Your task to perform on an android device: turn on the 12-hour format for clock Image 0: 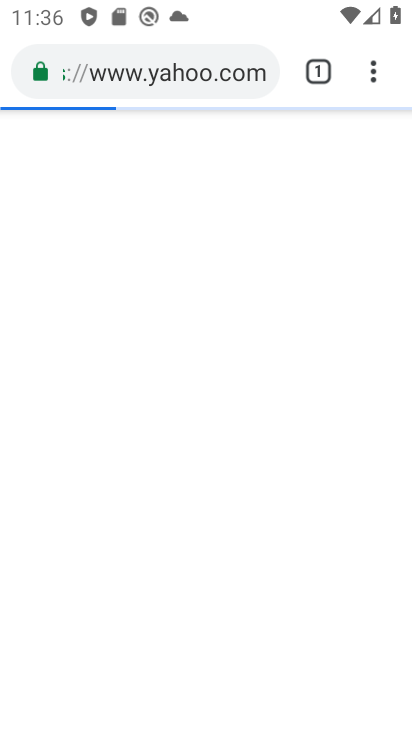
Step 0: press home button
Your task to perform on an android device: turn on the 12-hour format for clock Image 1: 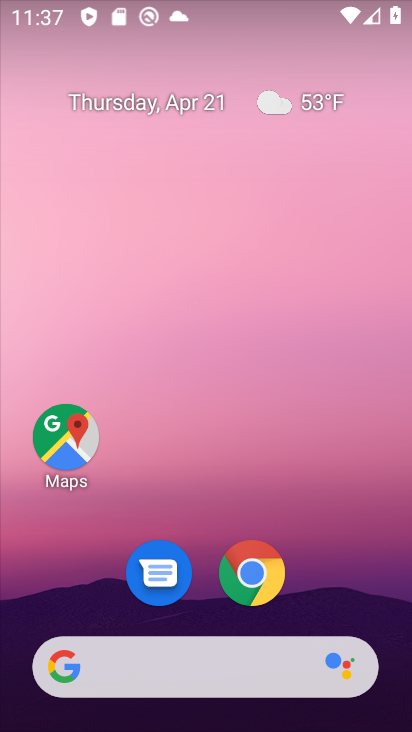
Step 1: drag from (181, 654) to (365, 83)
Your task to perform on an android device: turn on the 12-hour format for clock Image 2: 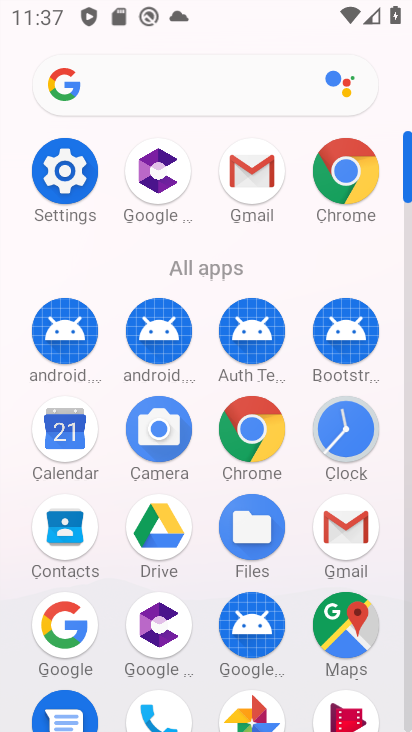
Step 2: click (352, 426)
Your task to perform on an android device: turn on the 12-hour format for clock Image 3: 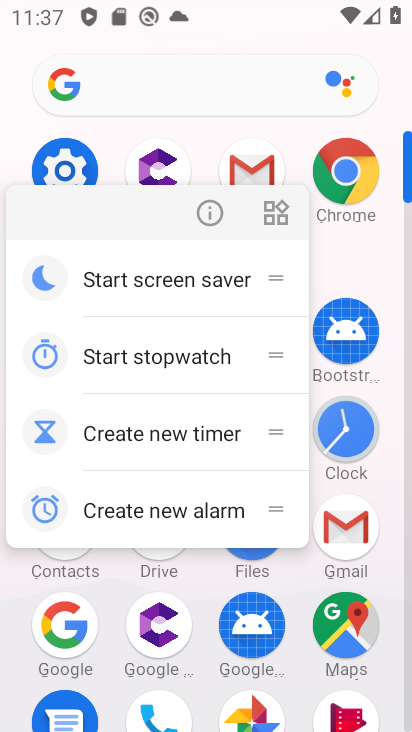
Step 3: click (348, 428)
Your task to perform on an android device: turn on the 12-hour format for clock Image 4: 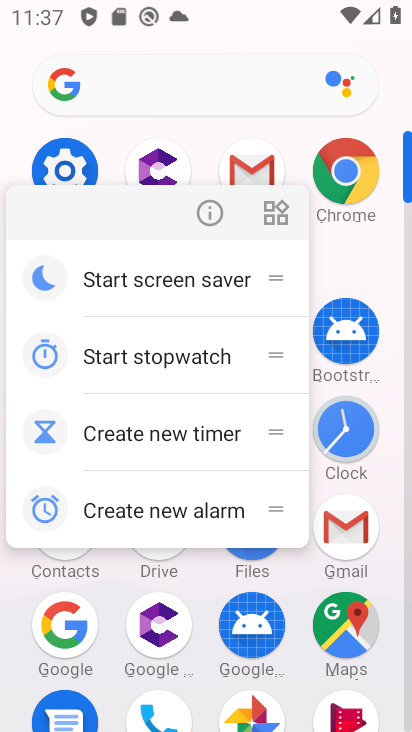
Step 4: click (338, 448)
Your task to perform on an android device: turn on the 12-hour format for clock Image 5: 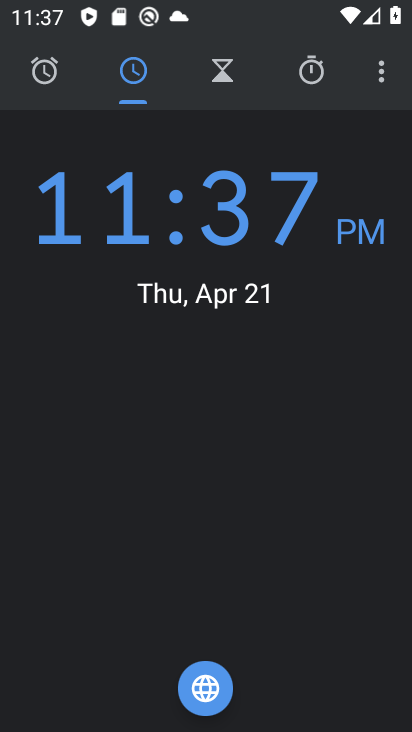
Step 5: click (383, 70)
Your task to perform on an android device: turn on the 12-hour format for clock Image 6: 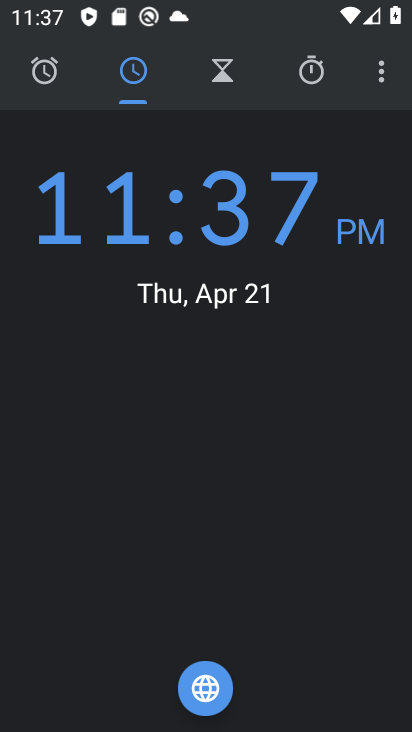
Step 6: click (379, 82)
Your task to perform on an android device: turn on the 12-hour format for clock Image 7: 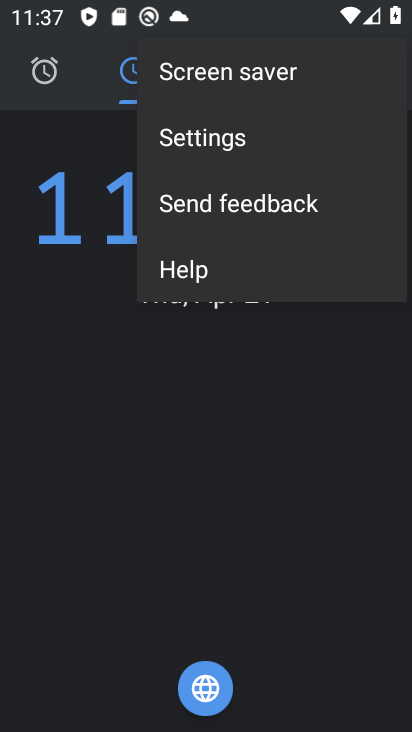
Step 7: click (230, 146)
Your task to perform on an android device: turn on the 12-hour format for clock Image 8: 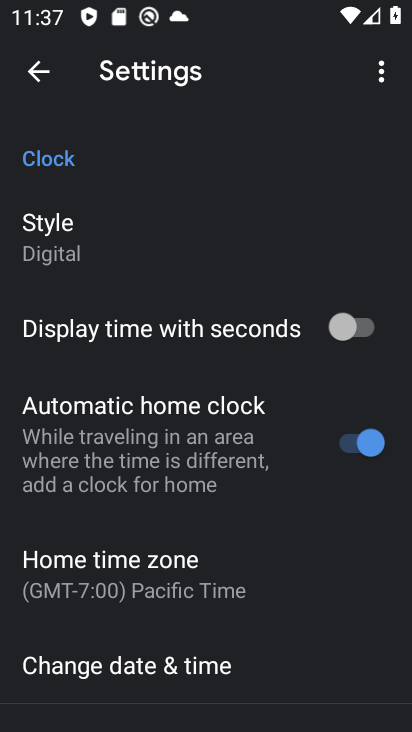
Step 8: drag from (211, 573) to (316, 200)
Your task to perform on an android device: turn on the 12-hour format for clock Image 9: 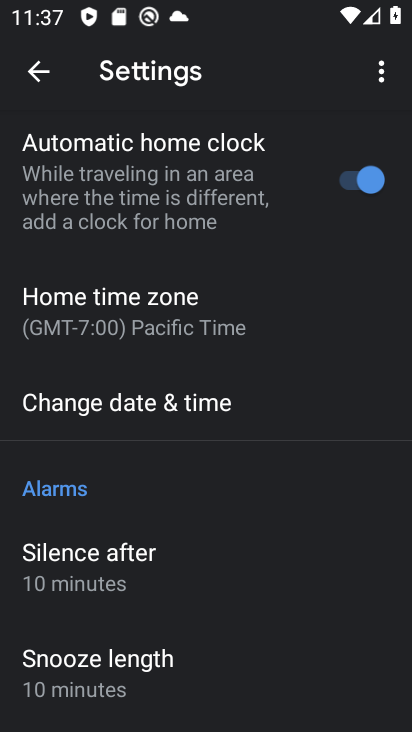
Step 9: click (170, 401)
Your task to perform on an android device: turn on the 12-hour format for clock Image 10: 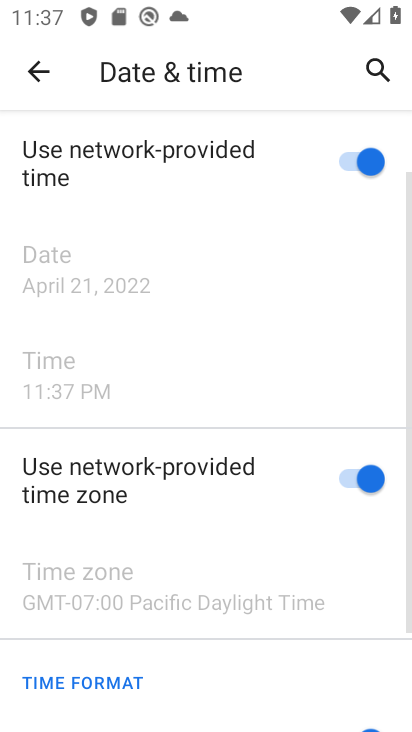
Step 10: task complete